Your task to perform on an android device: toggle data saver in the chrome app Image 0: 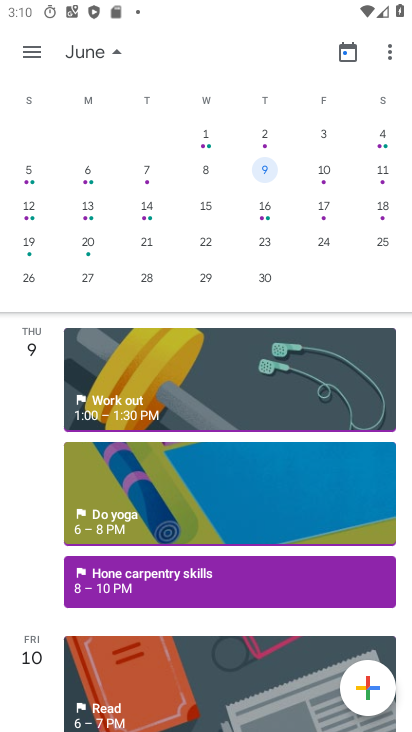
Step 0: press home button
Your task to perform on an android device: toggle data saver in the chrome app Image 1: 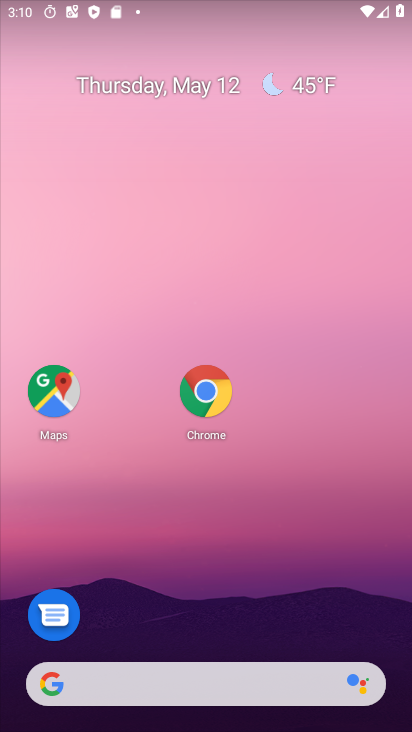
Step 1: click (211, 391)
Your task to perform on an android device: toggle data saver in the chrome app Image 2: 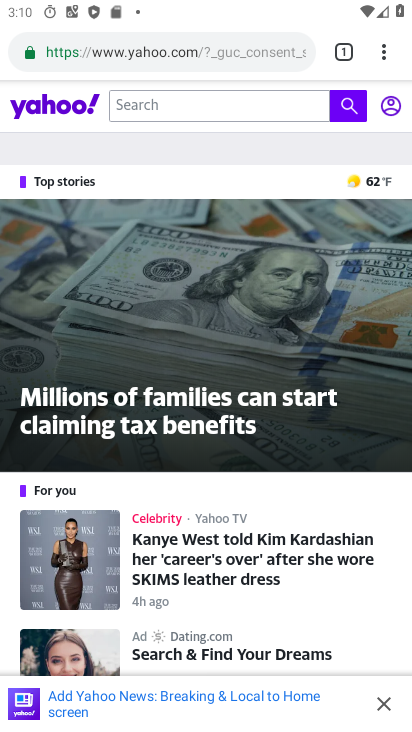
Step 2: click (377, 51)
Your task to perform on an android device: toggle data saver in the chrome app Image 3: 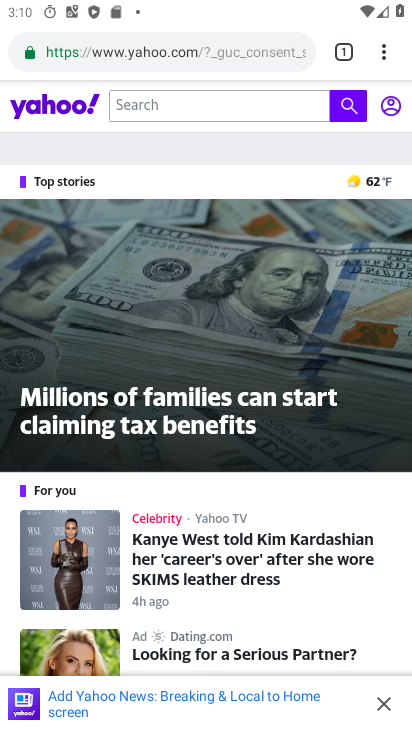
Step 3: click (377, 45)
Your task to perform on an android device: toggle data saver in the chrome app Image 4: 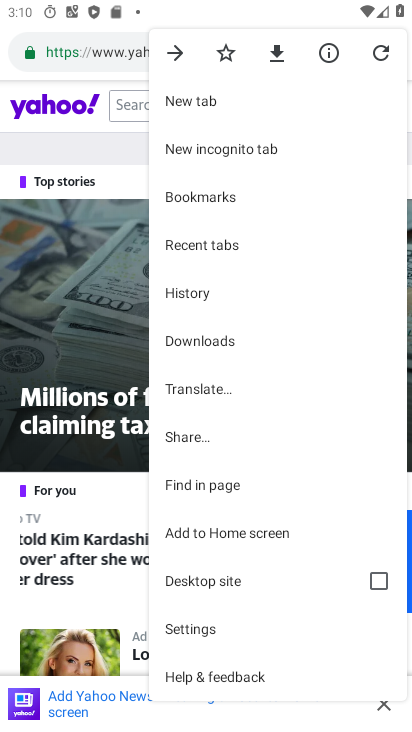
Step 4: click (215, 627)
Your task to perform on an android device: toggle data saver in the chrome app Image 5: 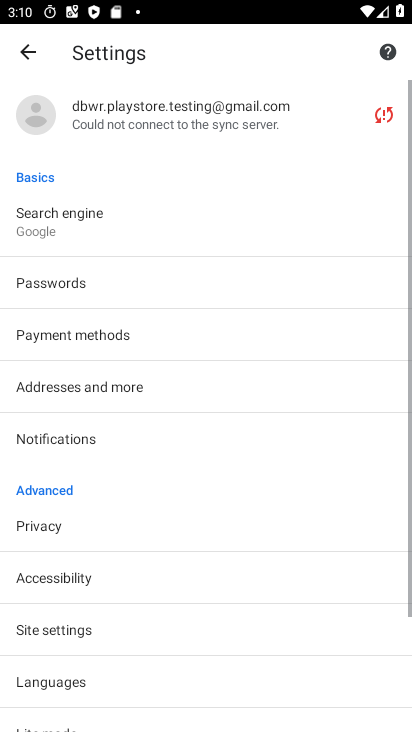
Step 5: drag from (188, 628) to (147, 218)
Your task to perform on an android device: toggle data saver in the chrome app Image 6: 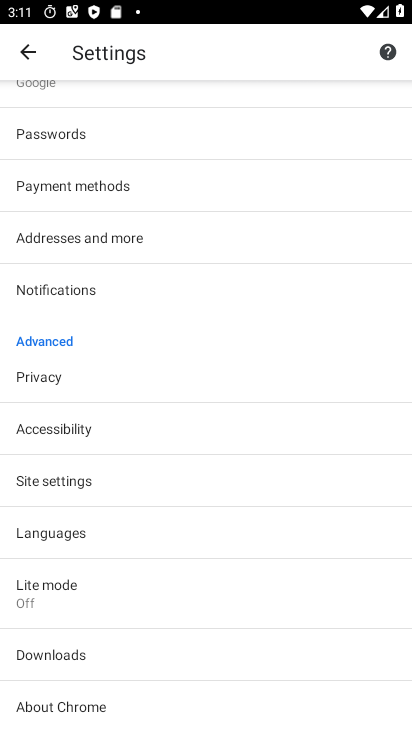
Step 6: click (72, 593)
Your task to perform on an android device: toggle data saver in the chrome app Image 7: 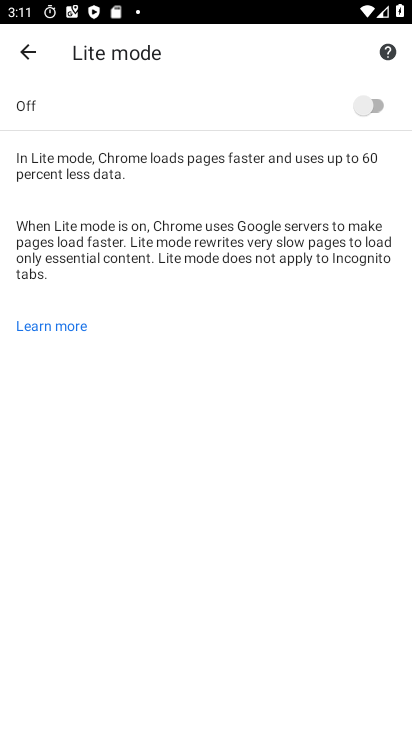
Step 7: click (361, 103)
Your task to perform on an android device: toggle data saver in the chrome app Image 8: 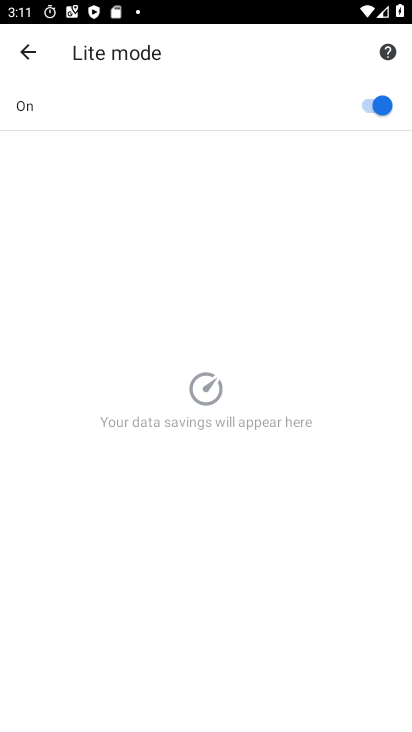
Step 8: task complete